Your task to perform on an android device: see creations saved in the google photos Image 0: 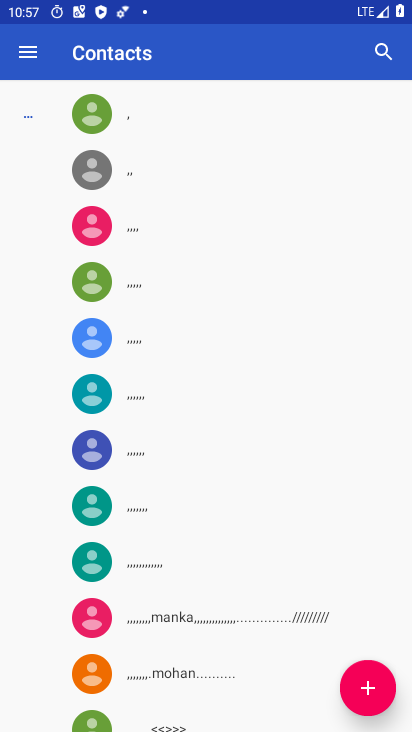
Step 0: press home button
Your task to perform on an android device: see creations saved in the google photos Image 1: 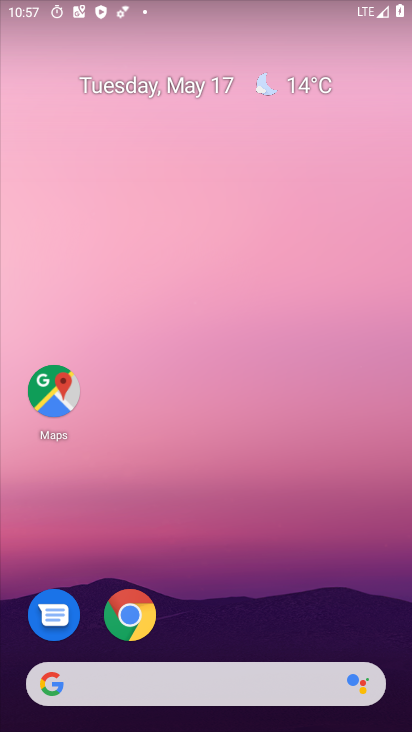
Step 1: drag from (173, 676) to (332, 203)
Your task to perform on an android device: see creations saved in the google photos Image 2: 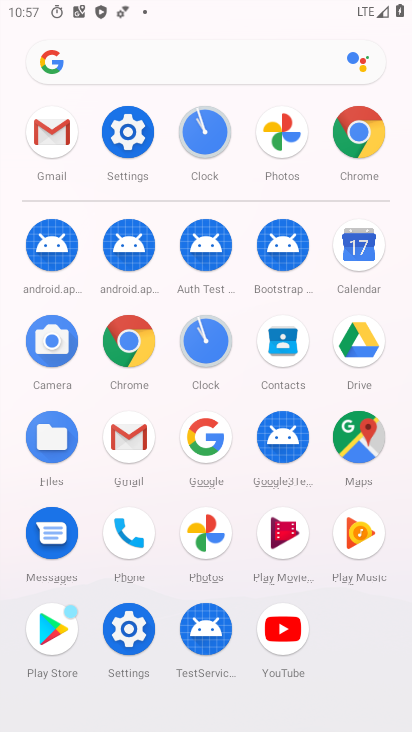
Step 2: click (209, 538)
Your task to perform on an android device: see creations saved in the google photos Image 3: 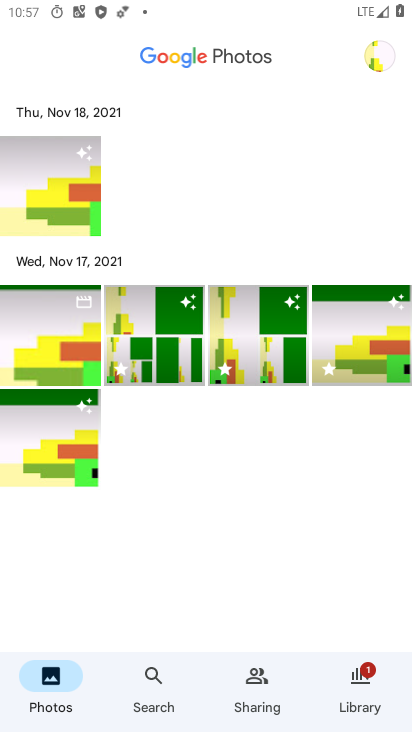
Step 3: click (160, 695)
Your task to perform on an android device: see creations saved in the google photos Image 4: 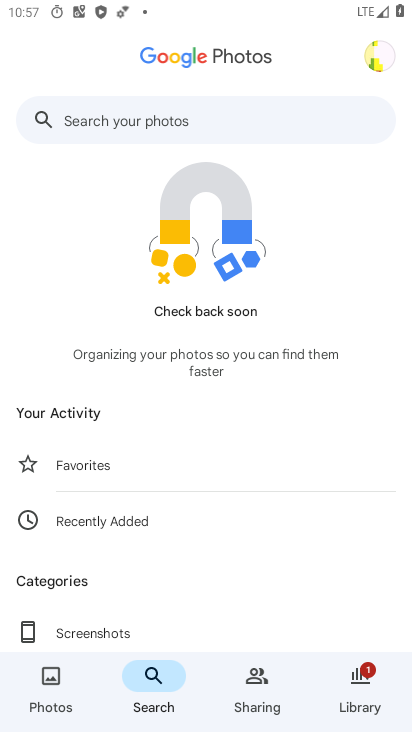
Step 4: drag from (182, 595) to (358, 78)
Your task to perform on an android device: see creations saved in the google photos Image 5: 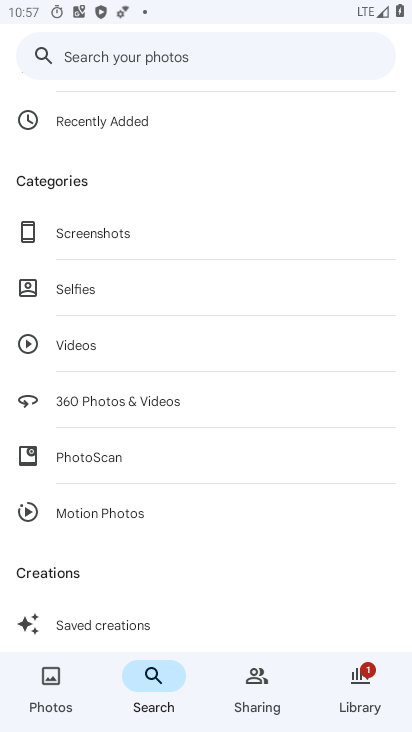
Step 5: click (125, 618)
Your task to perform on an android device: see creations saved in the google photos Image 6: 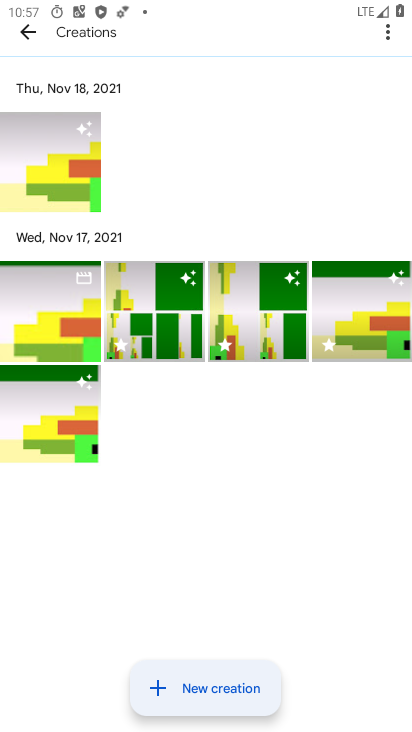
Step 6: task complete